Your task to perform on an android device: What's the weather? Image 0: 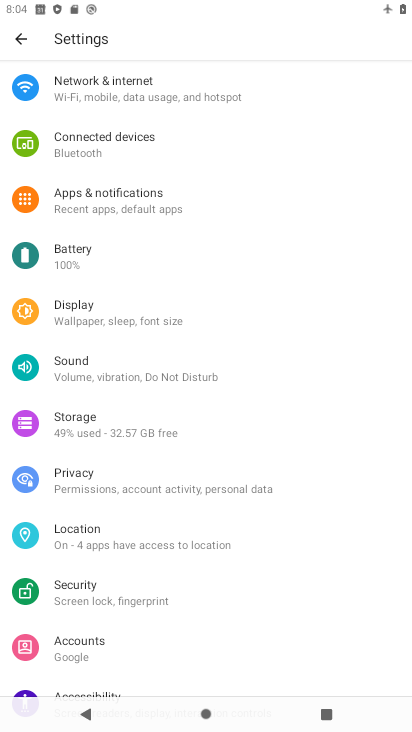
Step 0: press home button
Your task to perform on an android device: What's the weather? Image 1: 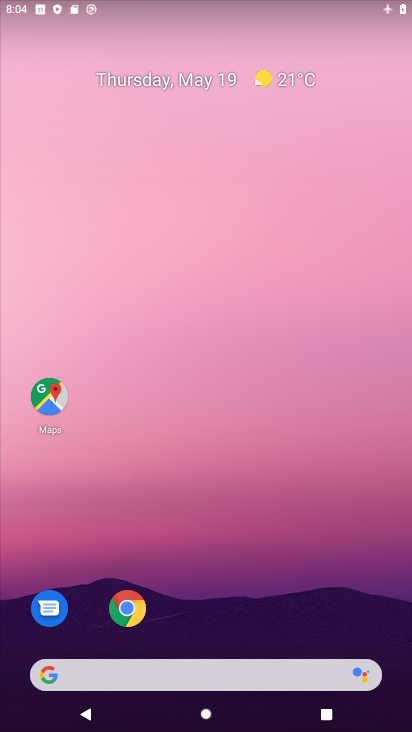
Step 1: click (143, 678)
Your task to perform on an android device: What's the weather? Image 2: 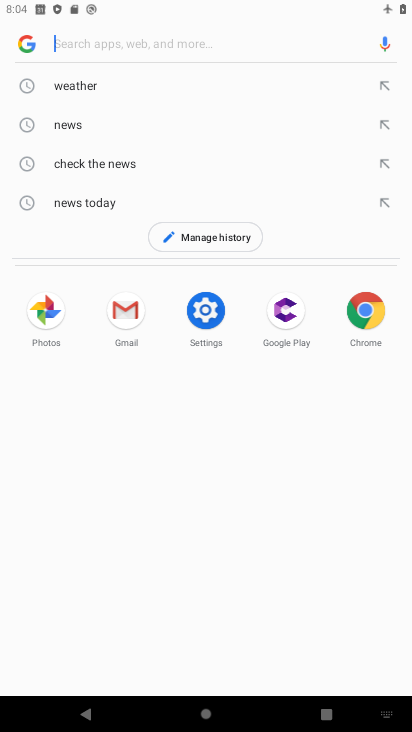
Step 2: click (74, 86)
Your task to perform on an android device: What's the weather? Image 3: 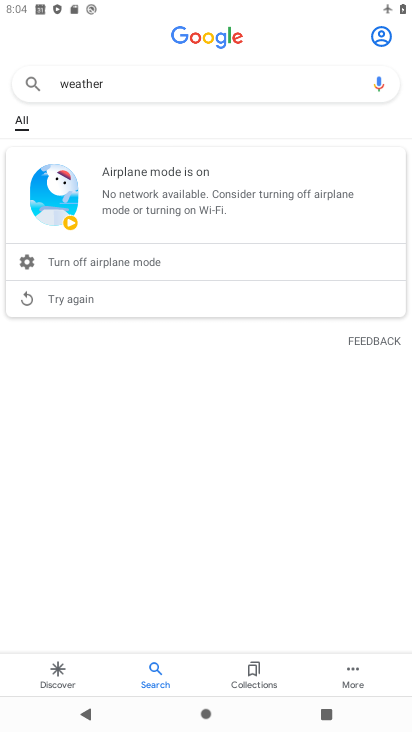
Step 3: task complete